Your task to perform on an android device: Show me recent news Image 0: 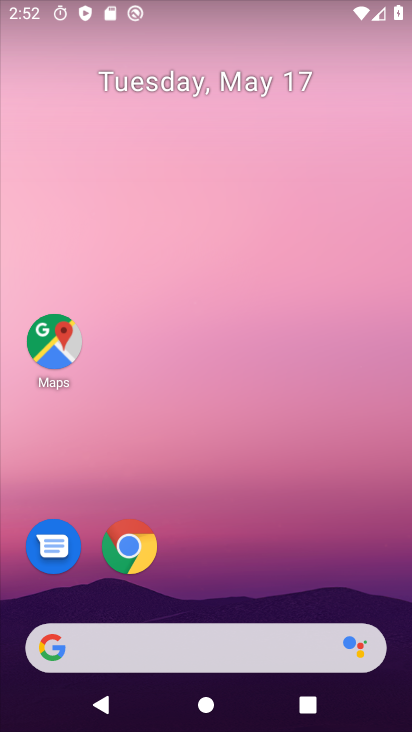
Step 0: drag from (314, 547) to (240, 163)
Your task to perform on an android device: Show me recent news Image 1: 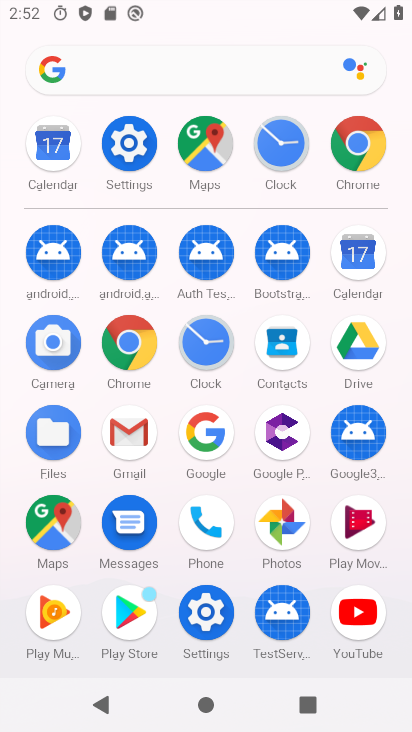
Step 1: click (214, 446)
Your task to perform on an android device: Show me recent news Image 2: 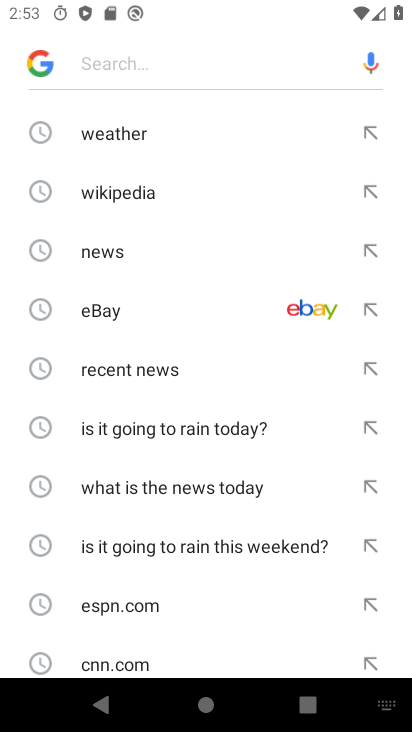
Step 2: click (194, 248)
Your task to perform on an android device: Show me recent news Image 3: 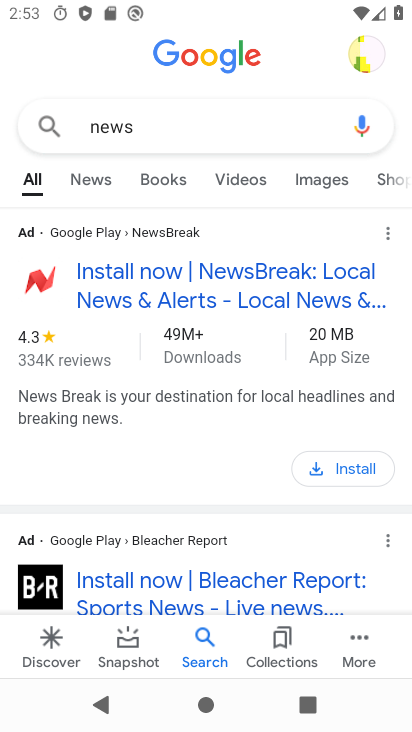
Step 3: task complete